Your task to perform on an android device: Show me popular games on the Play Store Image 0: 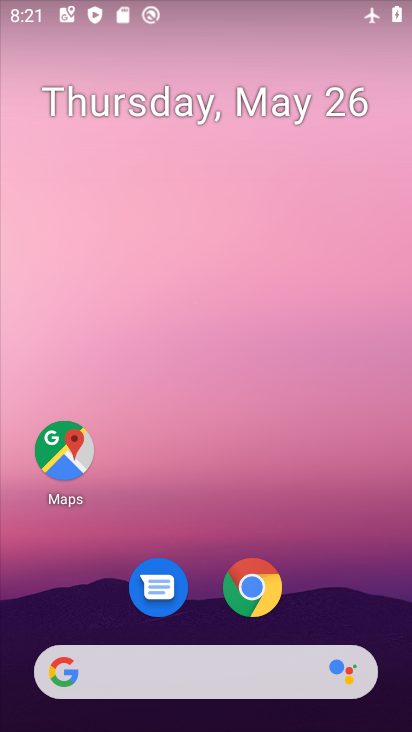
Step 0: drag from (206, 582) to (174, 222)
Your task to perform on an android device: Show me popular games on the Play Store Image 1: 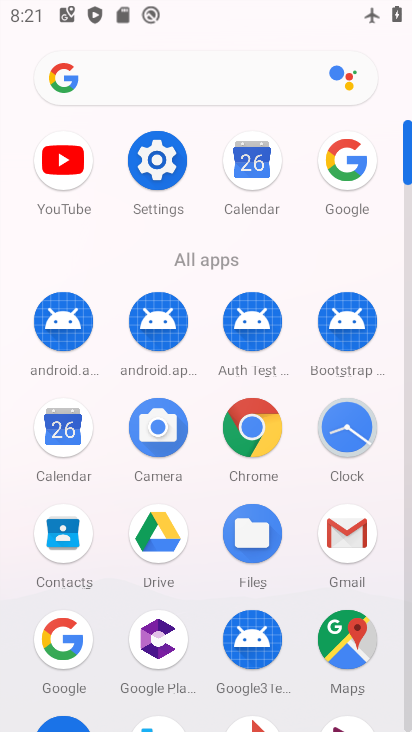
Step 1: drag from (134, 601) to (148, 310)
Your task to perform on an android device: Show me popular games on the Play Store Image 2: 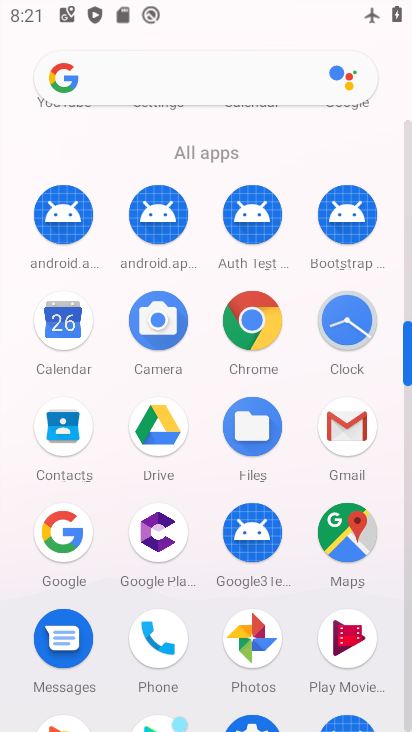
Step 2: drag from (196, 651) to (214, 352)
Your task to perform on an android device: Show me popular games on the Play Store Image 3: 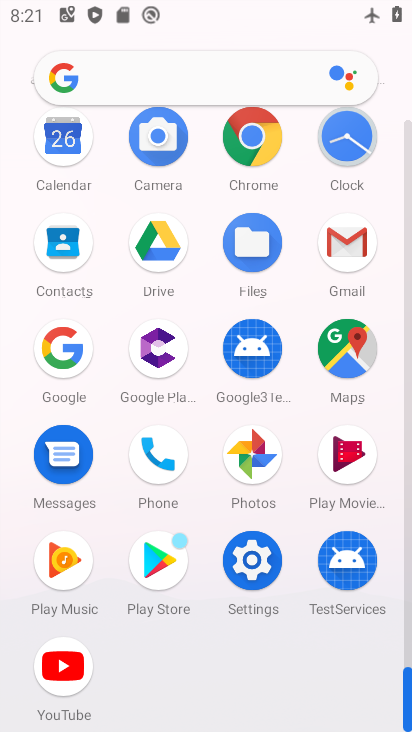
Step 3: click (172, 569)
Your task to perform on an android device: Show me popular games on the Play Store Image 4: 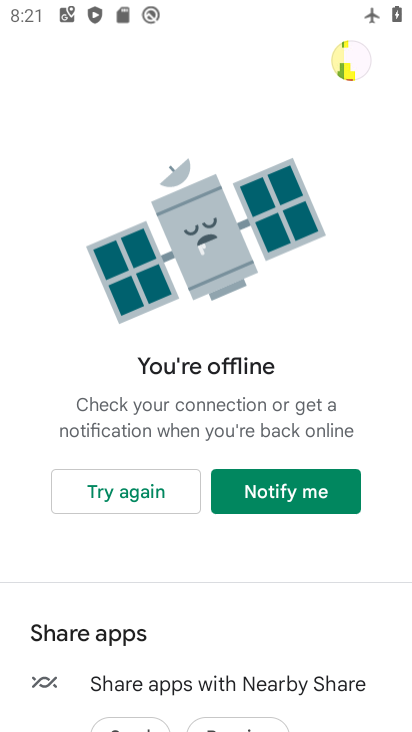
Step 4: task complete